Your task to perform on an android device: delete the emails in spam in the gmail app Image 0: 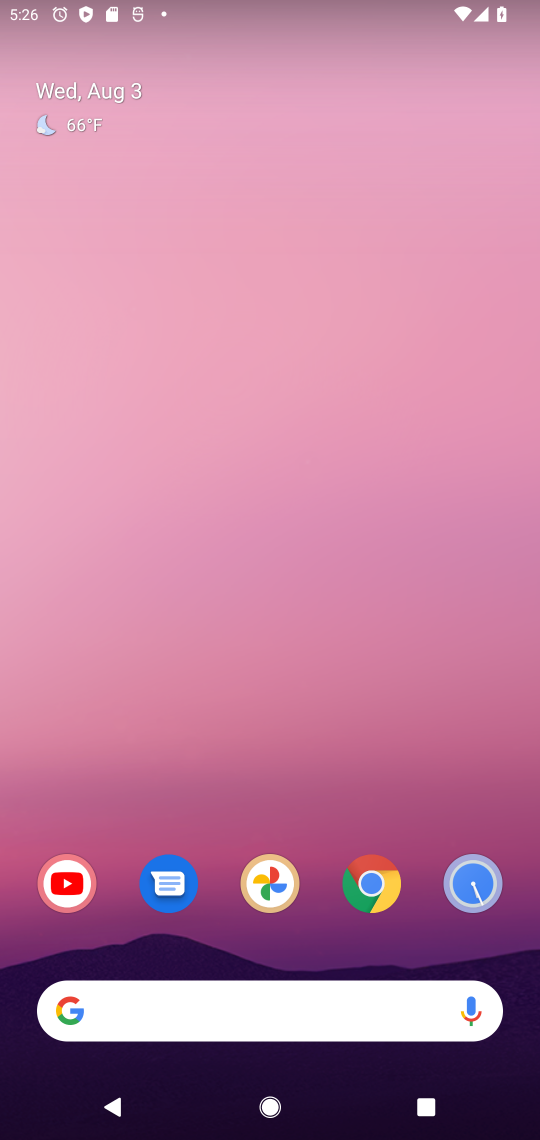
Step 0: drag from (236, 778) to (260, 316)
Your task to perform on an android device: delete the emails in spam in the gmail app Image 1: 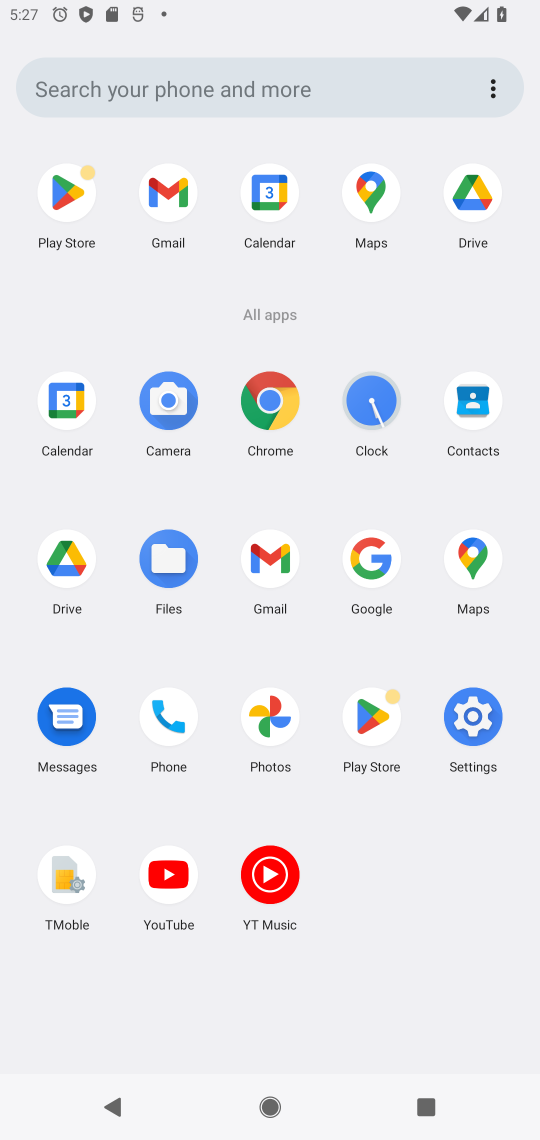
Step 1: click (287, 564)
Your task to perform on an android device: delete the emails in spam in the gmail app Image 2: 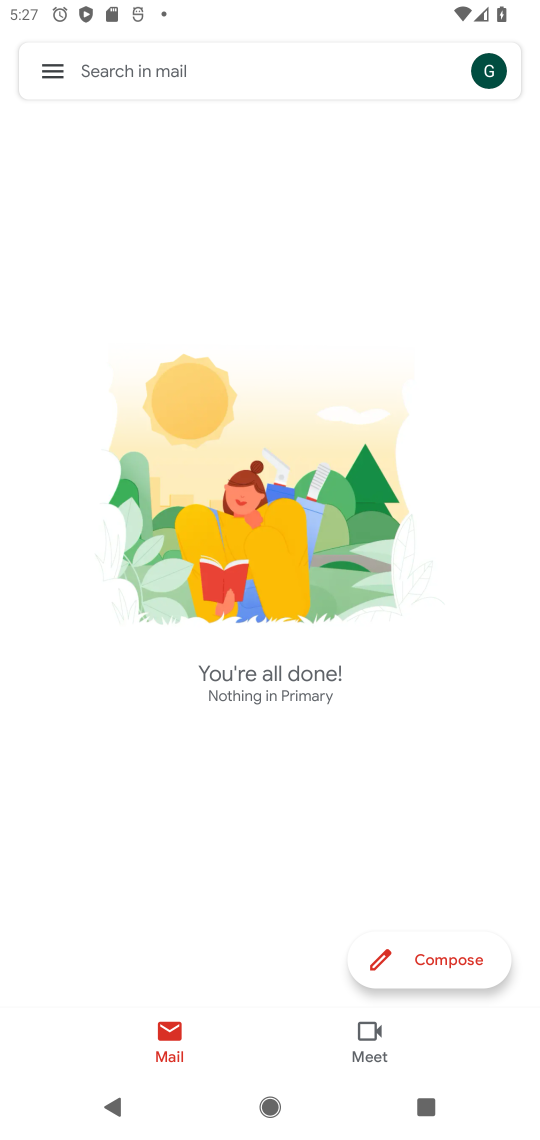
Step 2: click (48, 71)
Your task to perform on an android device: delete the emails in spam in the gmail app Image 3: 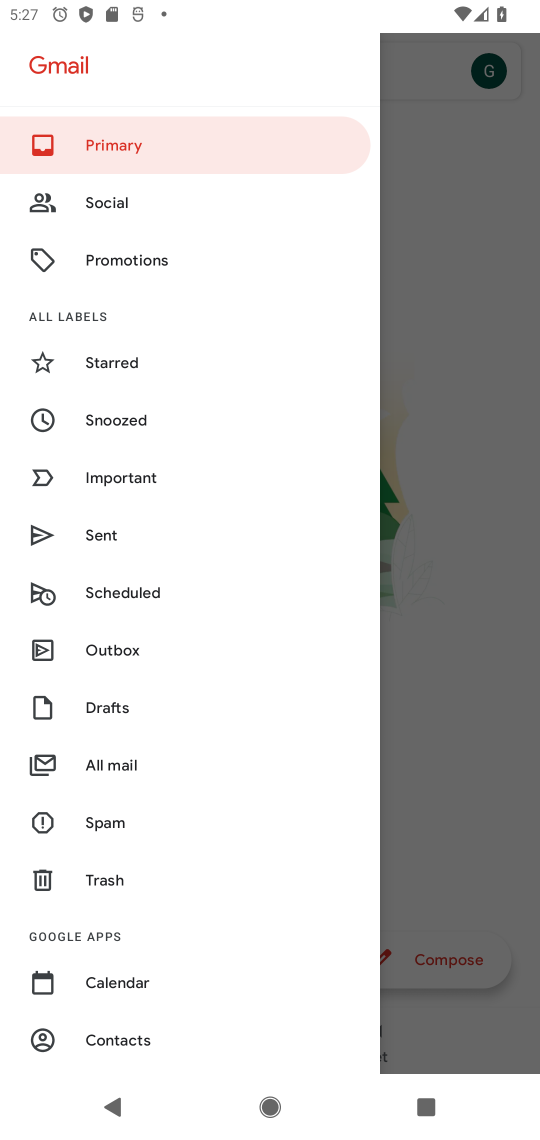
Step 3: click (117, 815)
Your task to perform on an android device: delete the emails in spam in the gmail app Image 4: 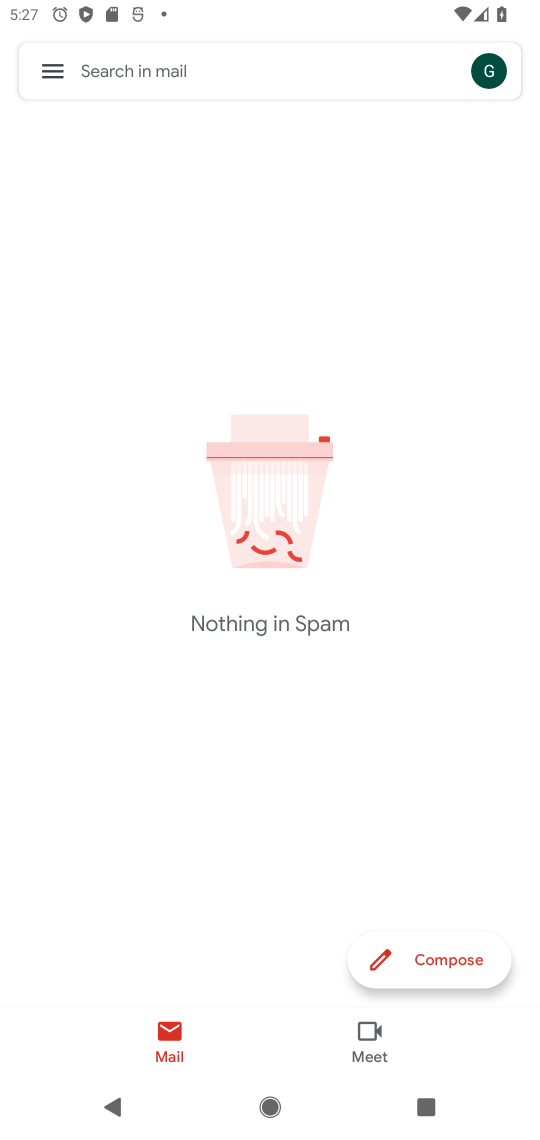
Step 4: task complete